Your task to perform on an android device: Open Reddit.com Image 0: 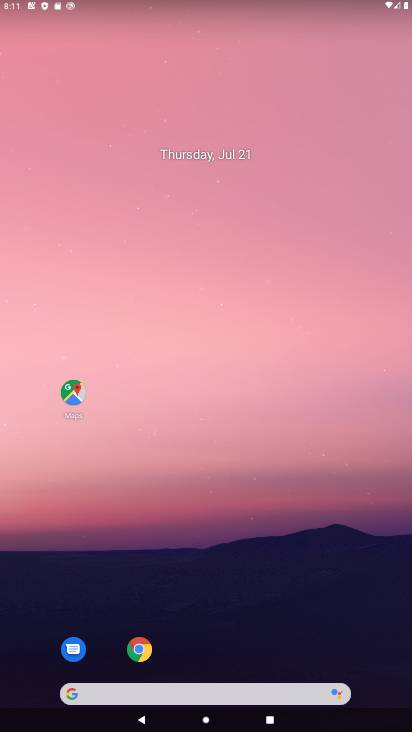
Step 0: click (134, 646)
Your task to perform on an android device: Open Reddit.com Image 1: 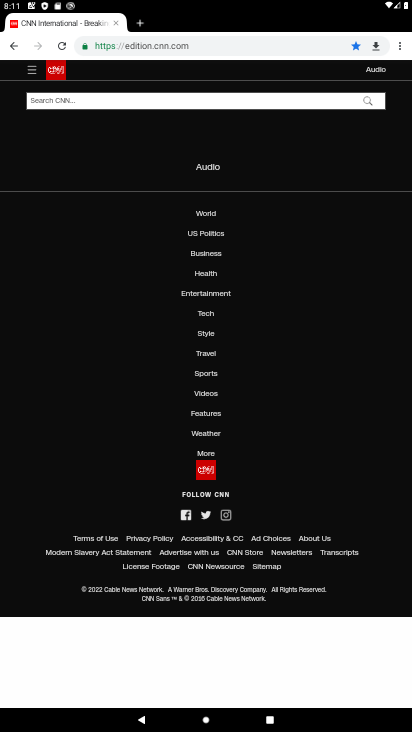
Step 1: click (226, 40)
Your task to perform on an android device: Open Reddit.com Image 2: 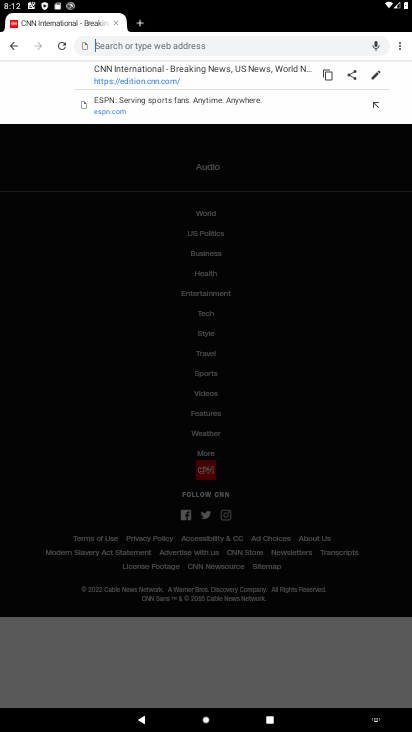
Step 2: type "Reddit.com"
Your task to perform on an android device: Open Reddit.com Image 3: 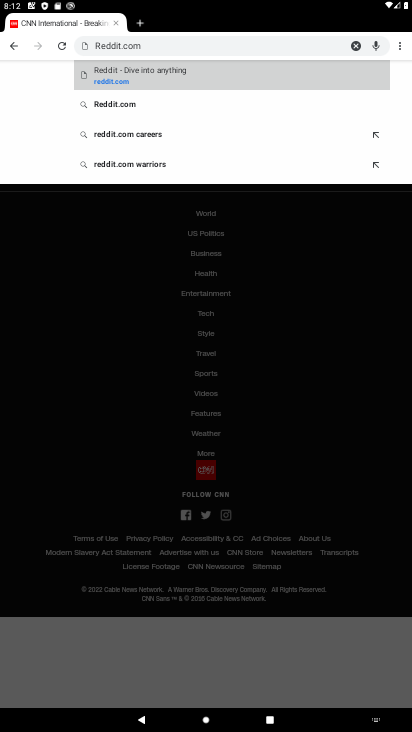
Step 3: click (168, 67)
Your task to perform on an android device: Open Reddit.com Image 4: 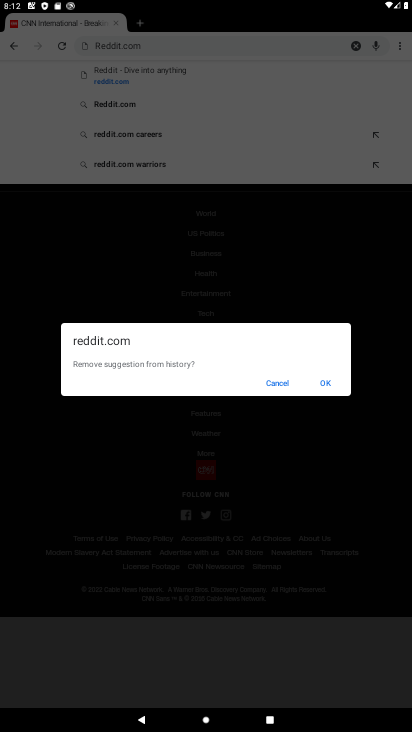
Step 4: click (282, 384)
Your task to perform on an android device: Open Reddit.com Image 5: 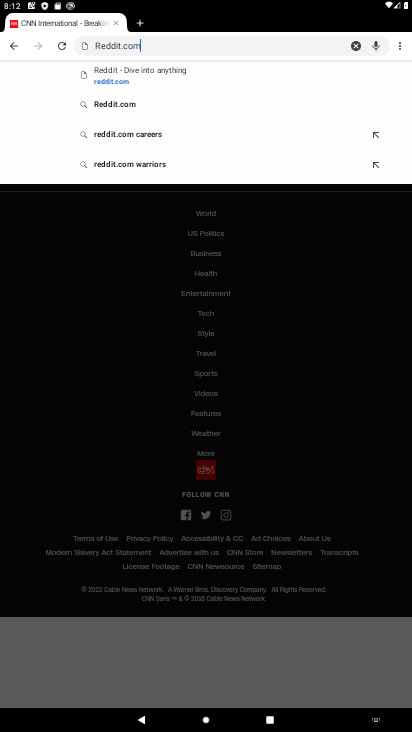
Step 5: click (129, 91)
Your task to perform on an android device: Open Reddit.com Image 6: 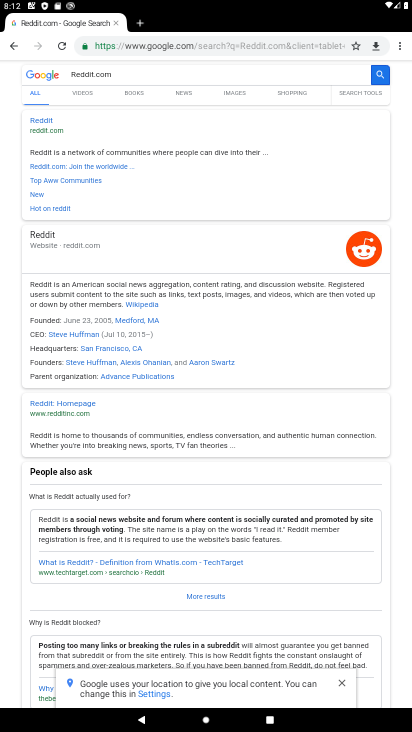
Step 6: task complete